Your task to perform on an android device: open sync settings in chrome Image 0: 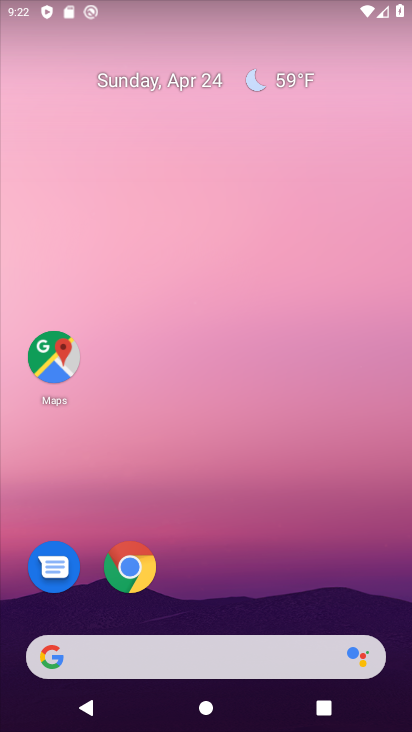
Step 0: click (129, 565)
Your task to perform on an android device: open sync settings in chrome Image 1: 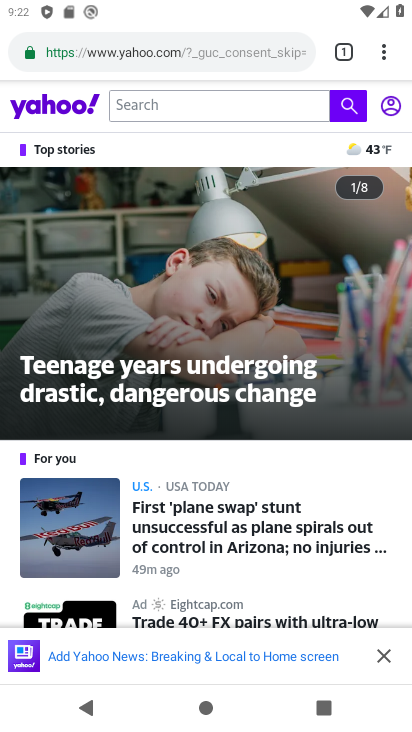
Step 1: click (380, 46)
Your task to perform on an android device: open sync settings in chrome Image 2: 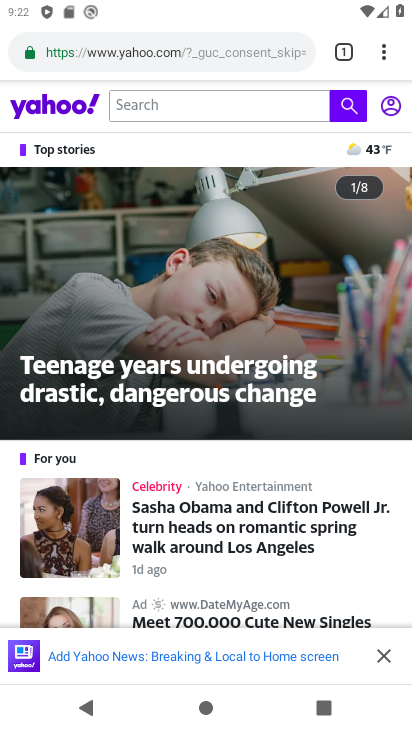
Step 2: click (380, 47)
Your task to perform on an android device: open sync settings in chrome Image 3: 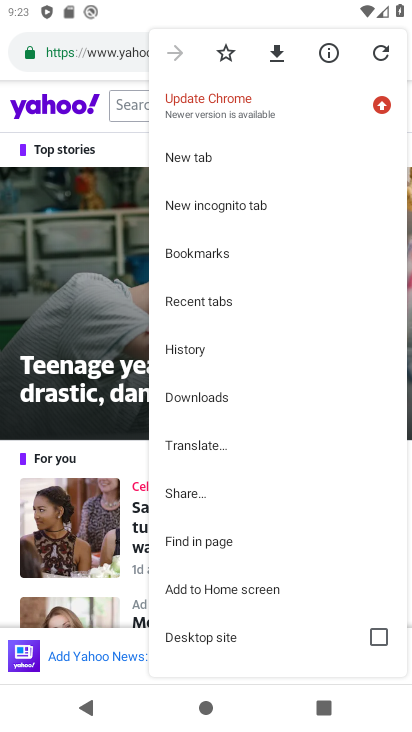
Step 3: drag from (300, 616) to (241, 281)
Your task to perform on an android device: open sync settings in chrome Image 4: 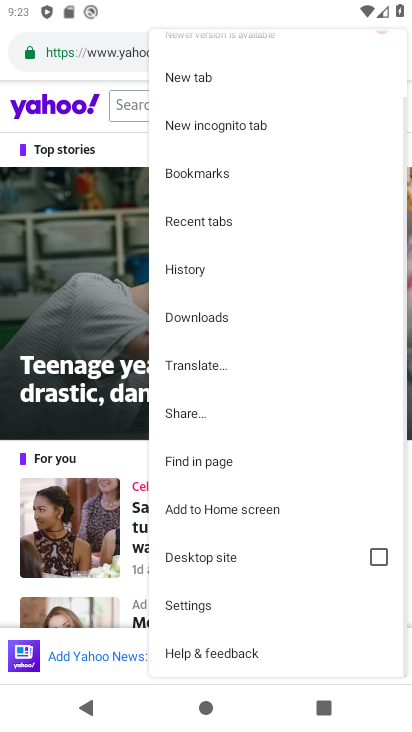
Step 4: click (196, 603)
Your task to perform on an android device: open sync settings in chrome Image 5: 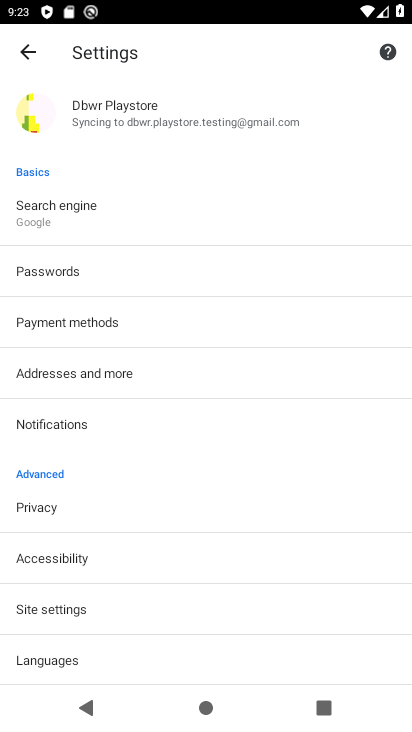
Step 5: click (53, 611)
Your task to perform on an android device: open sync settings in chrome Image 6: 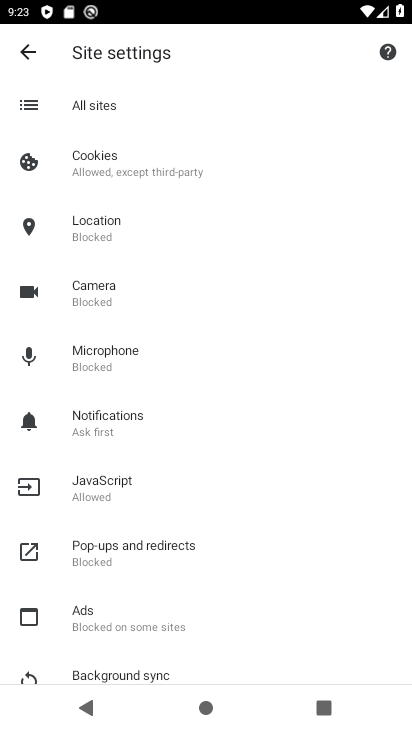
Step 6: drag from (285, 603) to (304, 270)
Your task to perform on an android device: open sync settings in chrome Image 7: 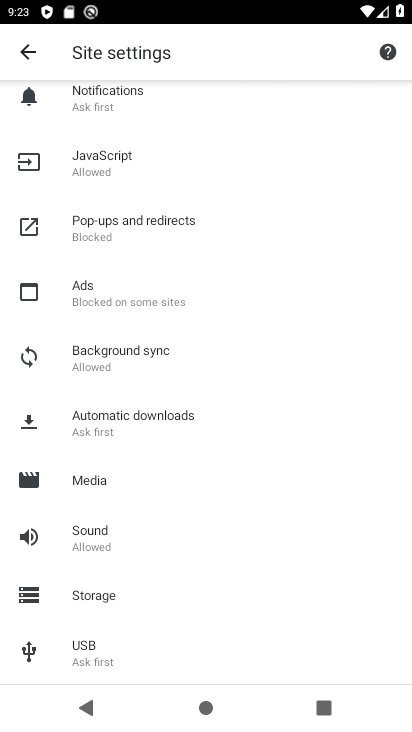
Step 7: click (112, 345)
Your task to perform on an android device: open sync settings in chrome Image 8: 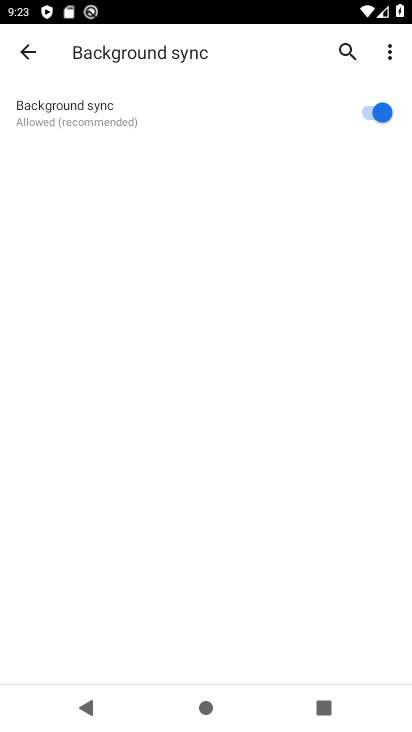
Step 8: task complete